Your task to perform on an android device: turn smart compose on in the gmail app Image 0: 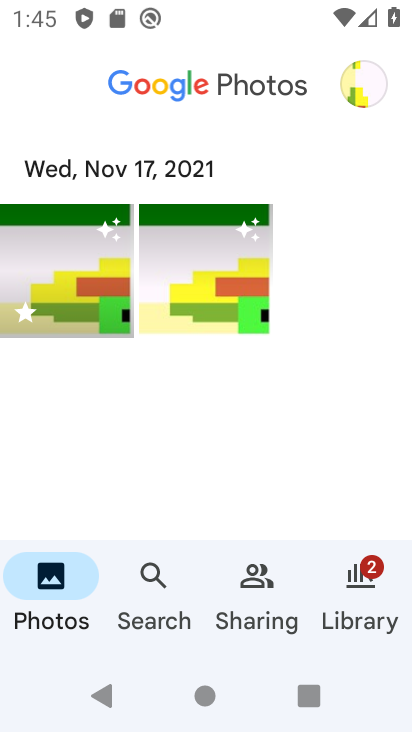
Step 0: press home button
Your task to perform on an android device: turn smart compose on in the gmail app Image 1: 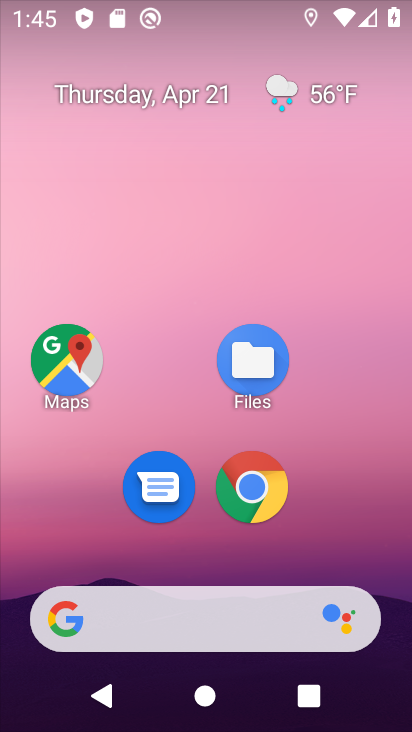
Step 1: drag from (381, 552) to (359, 168)
Your task to perform on an android device: turn smart compose on in the gmail app Image 2: 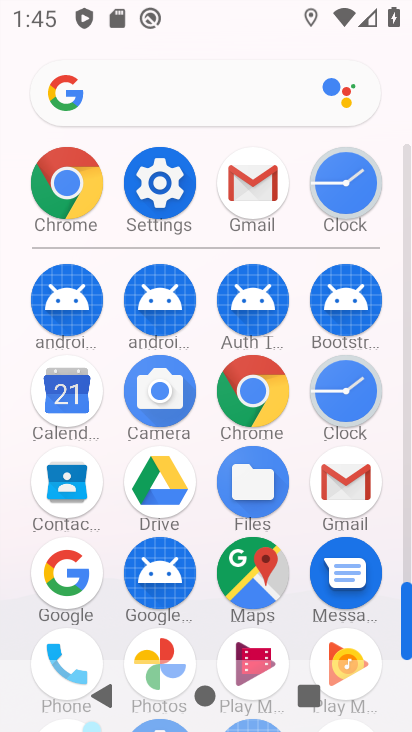
Step 2: click (340, 494)
Your task to perform on an android device: turn smart compose on in the gmail app Image 3: 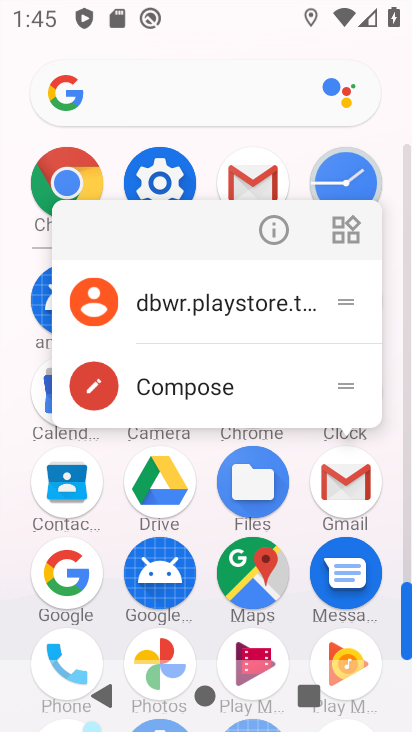
Step 3: click (331, 475)
Your task to perform on an android device: turn smart compose on in the gmail app Image 4: 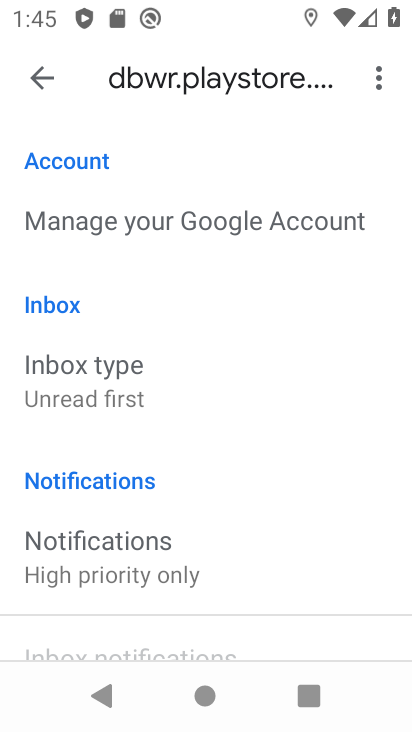
Step 4: task complete